Your task to perform on an android device: What's the weather today? Image 0: 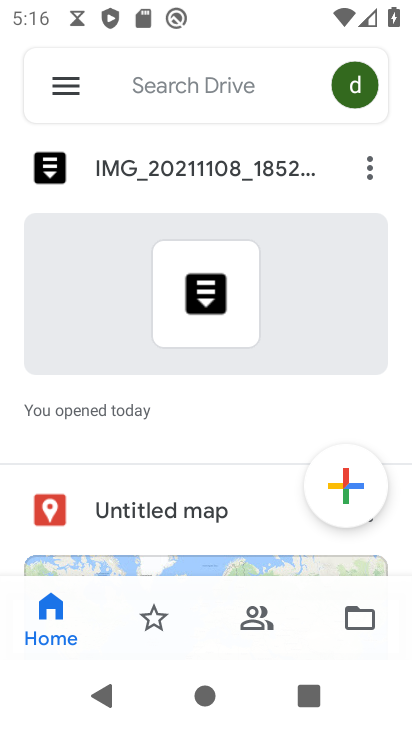
Step 0: press back button
Your task to perform on an android device: What's the weather today? Image 1: 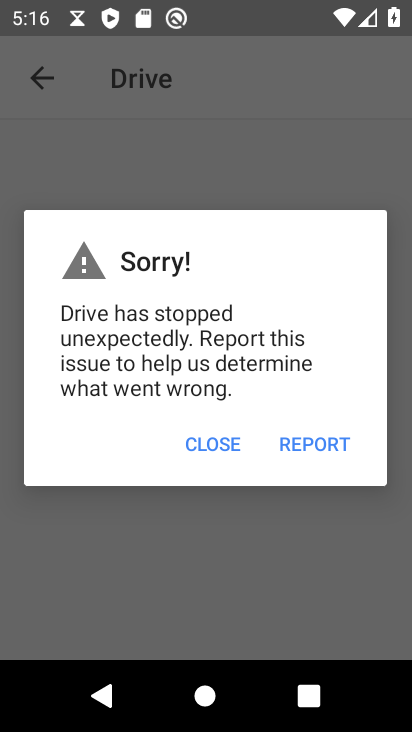
Step 1: press back button
Your task to perform on an android device: What's the weather today? Image 2: 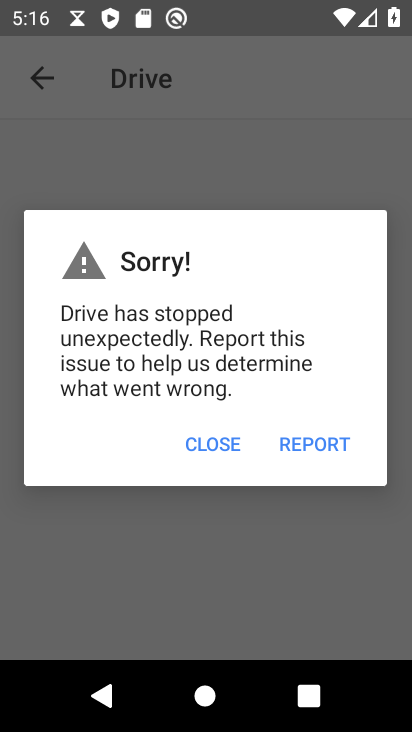
Step 2: press home button
Your task to perform on an android device: What's the weather today? Image 3: 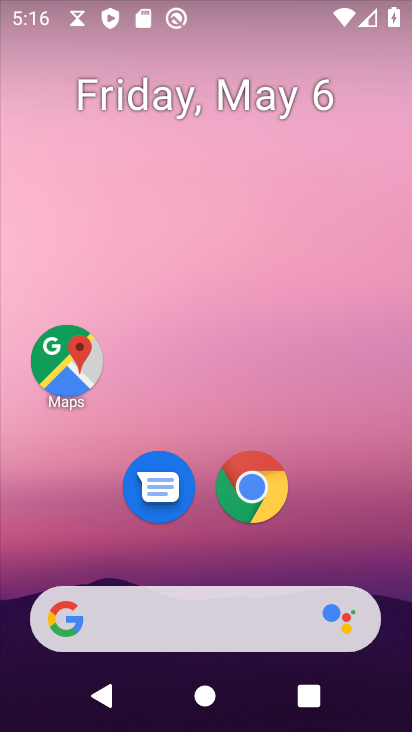
Step 3: drag from (309, 557) to (262, 7)
Your task to perform on an android device: What's the weather today? Image 4: 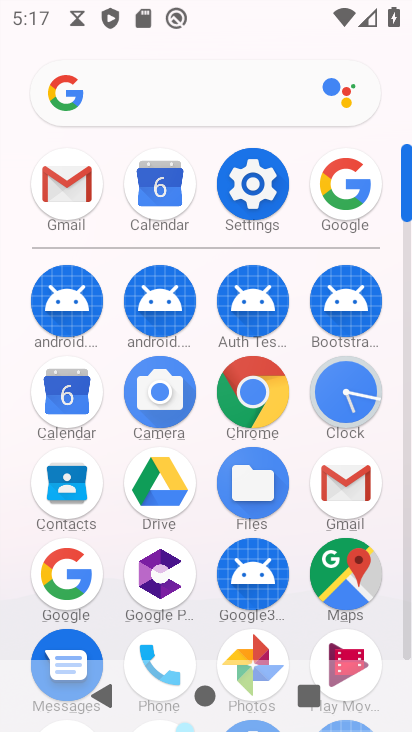
Step 4: click (342, 181)
Your task to perform on an android device: What's the weather today? Image 5: 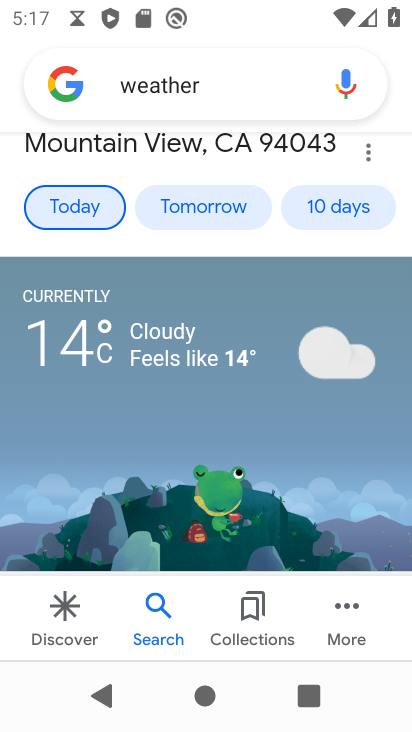
Step 5: task complete